Your task to perform on an android device: delete a single message in the gmail app Image 0: 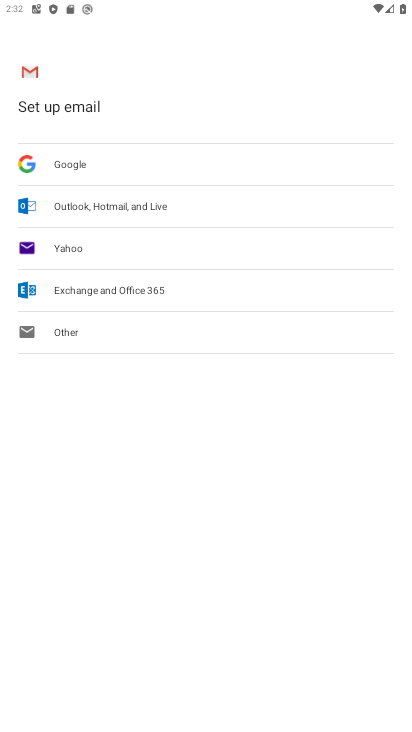
Step 0: press home button
Your task to perform on an android device: delete a single message in the gmail app Image 1: 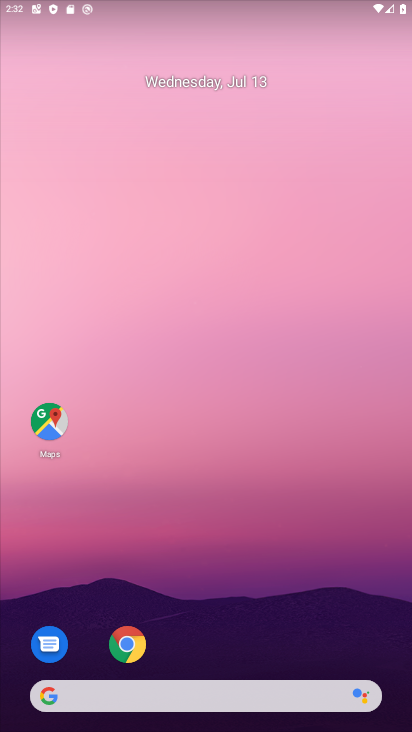
Step 1: drag from (303, 632) to (311, 92)
Your task to perform on an android device: delete a single message in the gmail app Image 2: 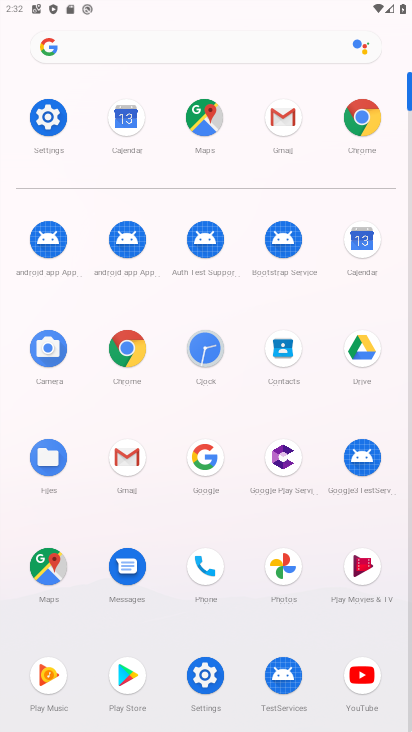
Step 2: click (280, 131)
Your task to perform on an android device: delete a single message in the gmail app Image 3: 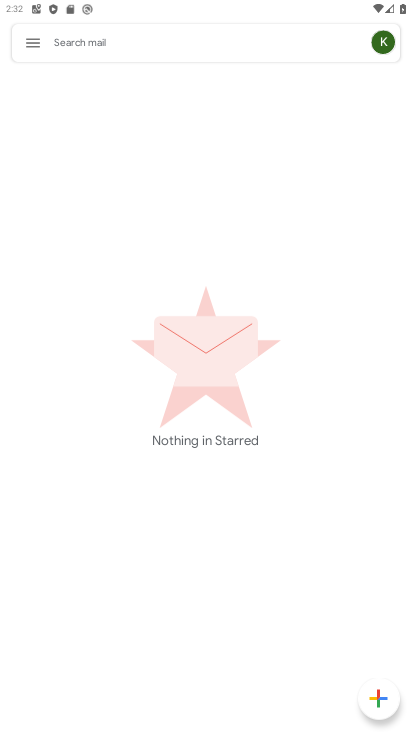
Step 3: click (36, 40)
Your task to perform on an android device: delete a single message in the gmail app Image 4: 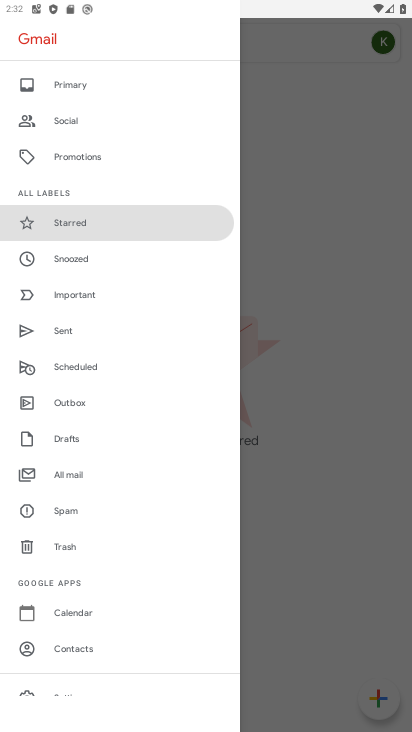
Step 4: click (65, 462)
Your task to perform on an android device: delete a single message in the gmail app Image 5: 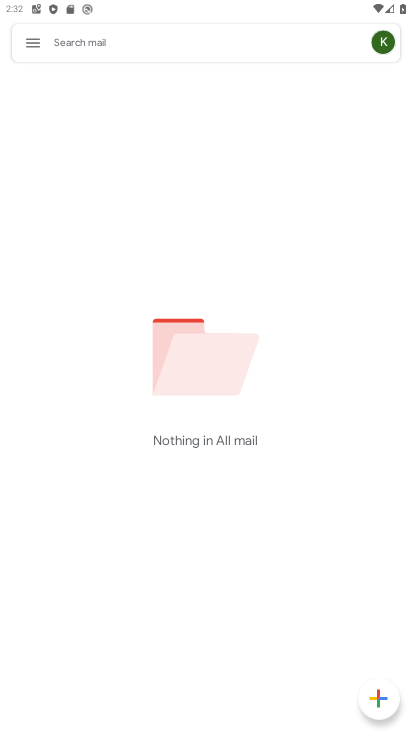
Step 5: task complete